Your task to perform on an android device: Open calendar and show me the third week of next month Image 0: 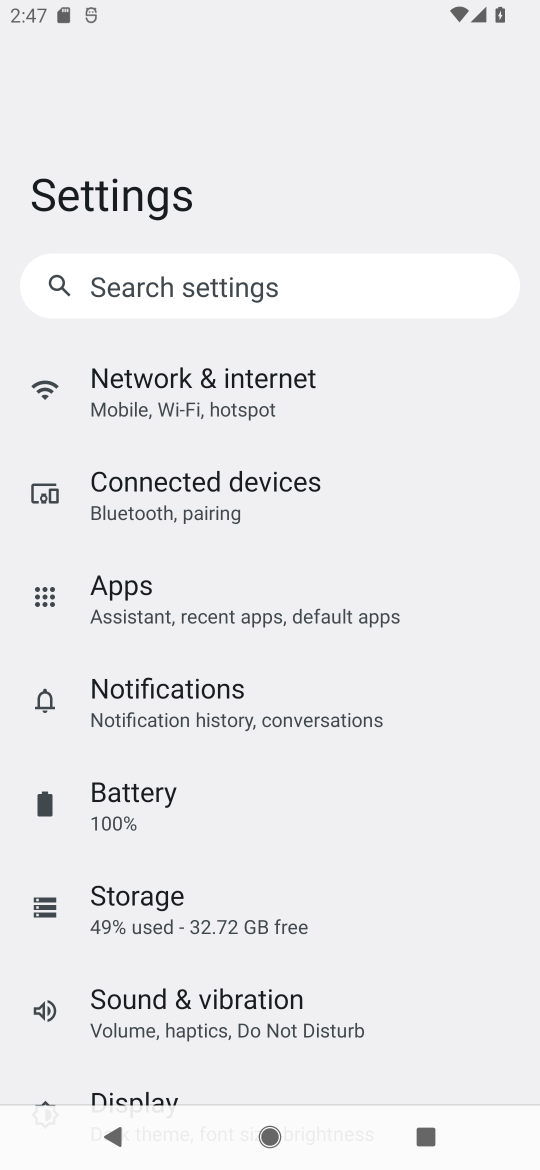
Step 0: press home button
Your task to perform on an android device: Open calendar and show me the third week of next month Image 1: 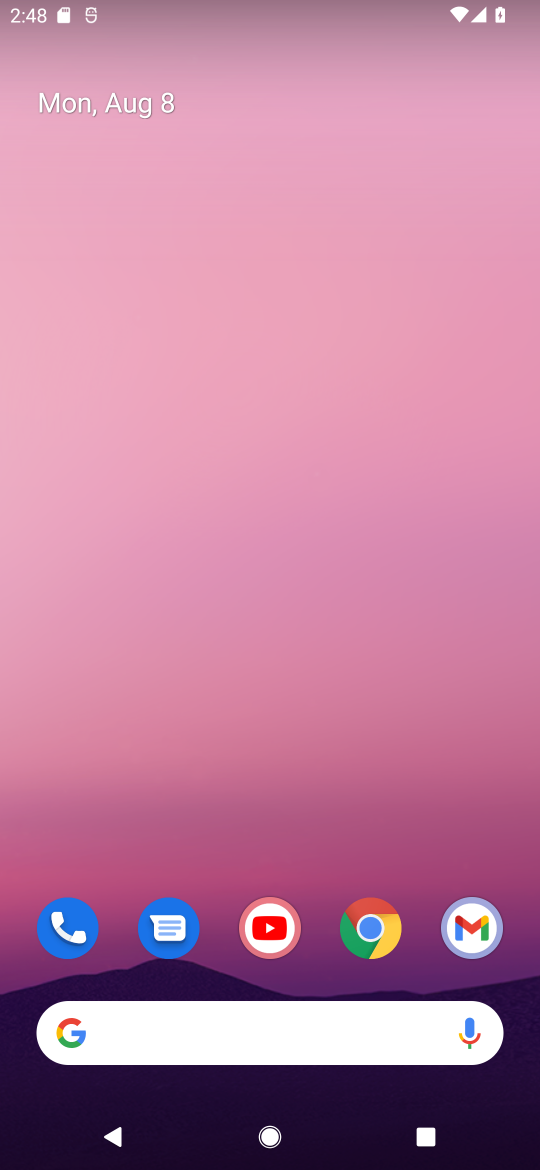
Step 1: click (106, 101)
Your task to perform on an android device: Open calendar and show me the third week of next month Image 2: 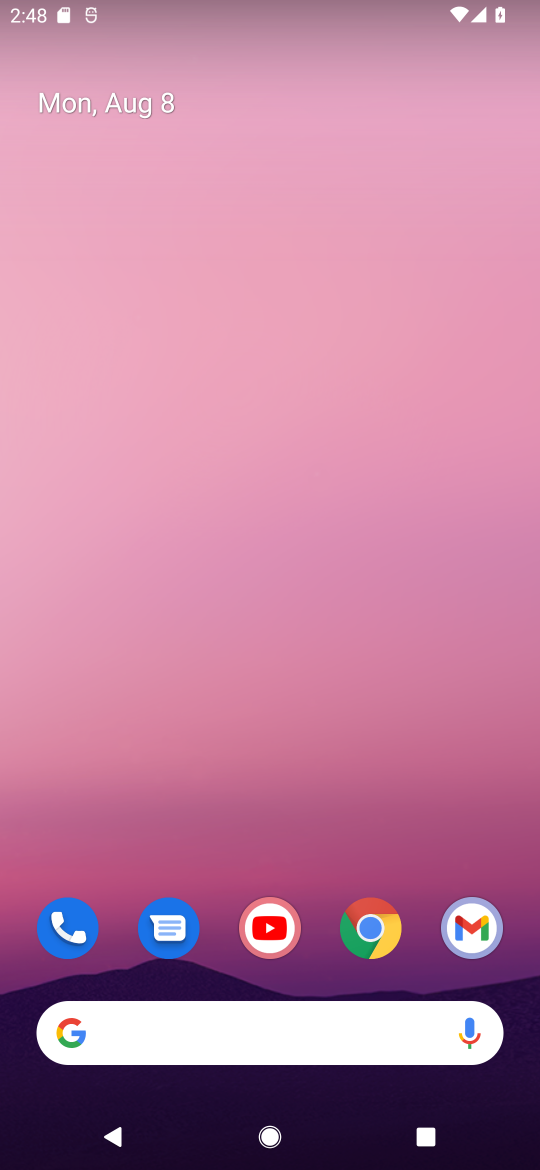
Step 2: click (106, 101)
Your task to perform on an android device: Open calendar and show me the third week of next month Image 3: 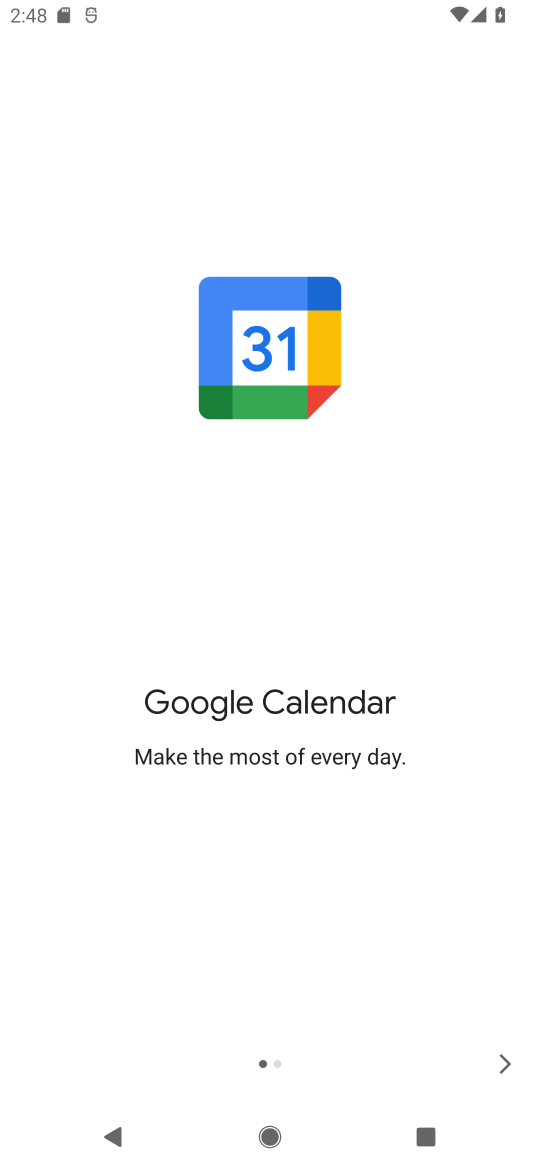
Step 3: click (509, 1068)
Your task to perform on an android device: Open calendar and show me the third week of next month Image 4: 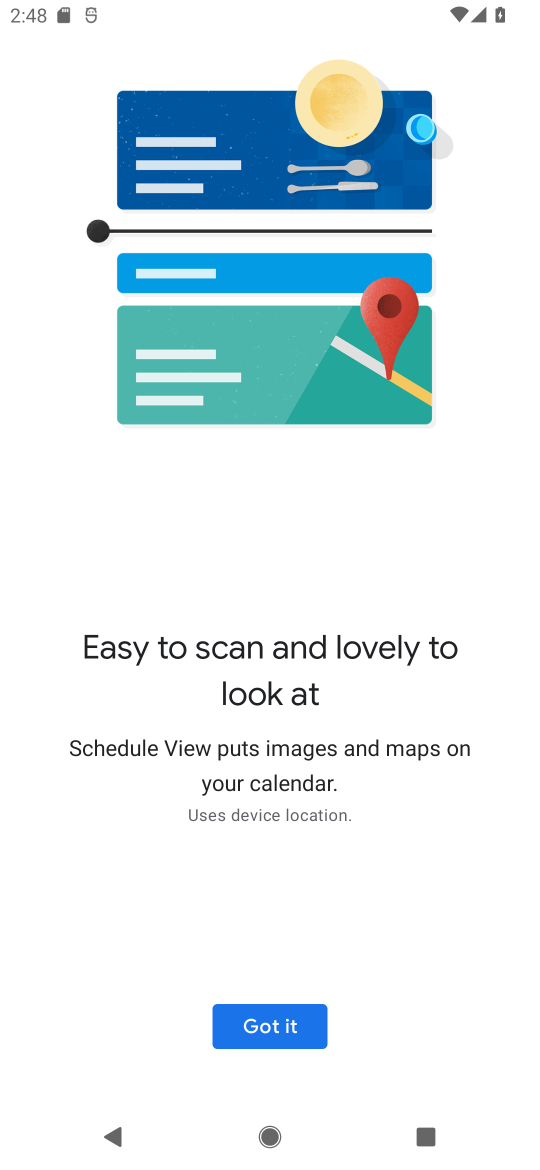
Step 4: click (297, 1017)
Your task to perform on an android device: Open calendar and show me the third week of next month Image 5: 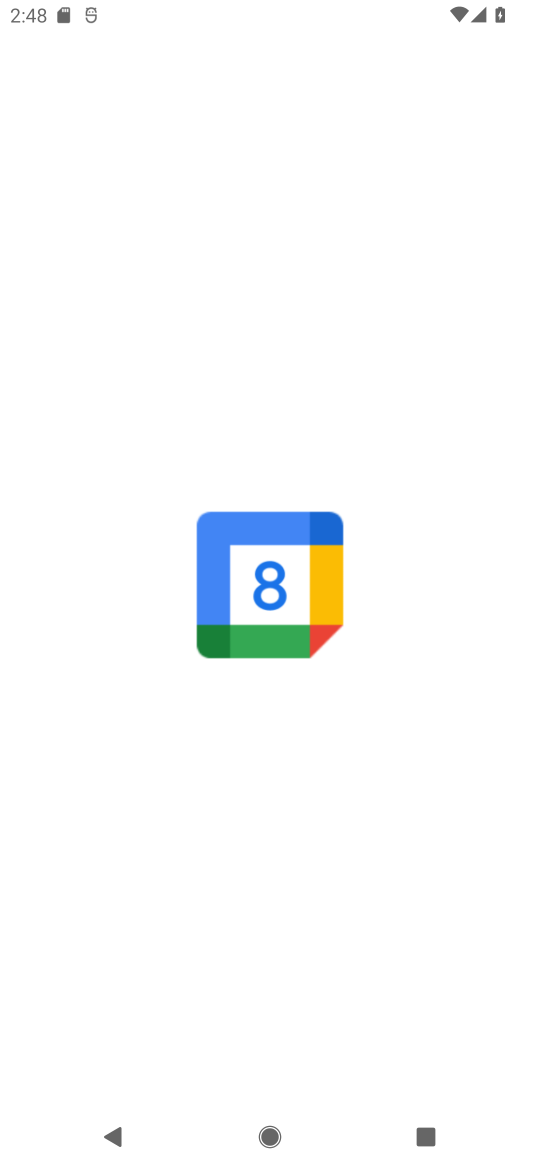
Step 5: click (297, 1017)
Your task to perform on an android device: Open calendar and show me the third week of next month Image 6: 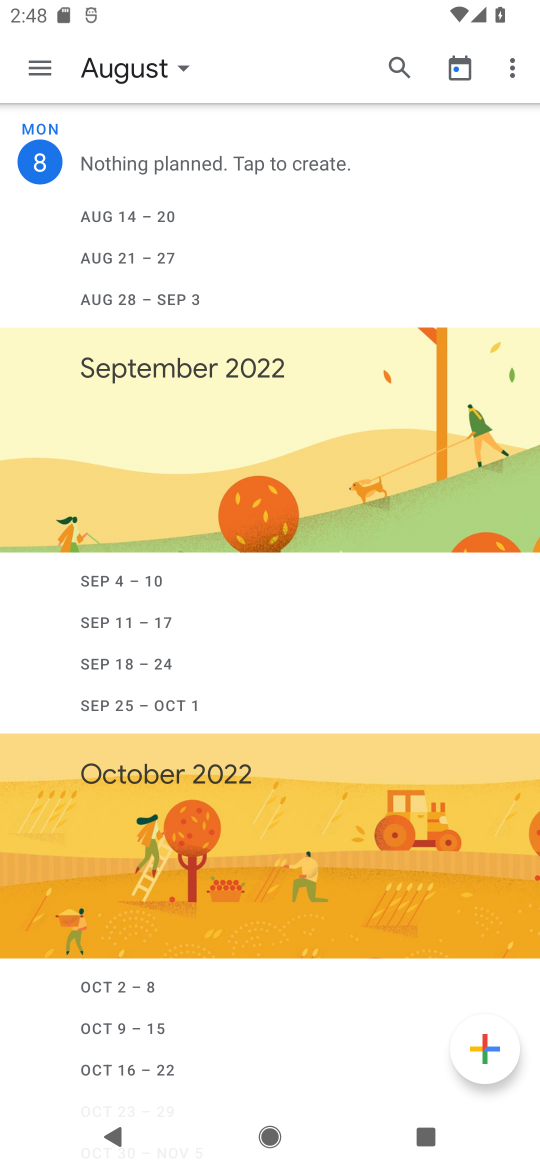
Step 6: click (177, 79)
Your task to perform on an android device: Open calendar and show me the third week of next month Image 7: 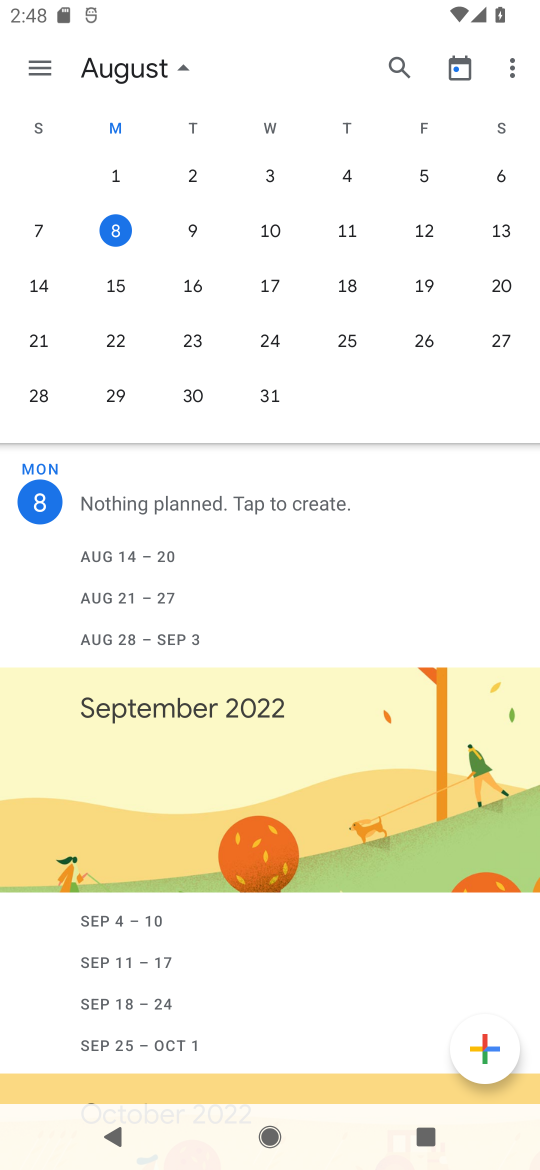
Step 7: drag from (485, 392) to (39, 256)
Your task to perform on an android device: Open calendar and show me the third week of next month Image 8: 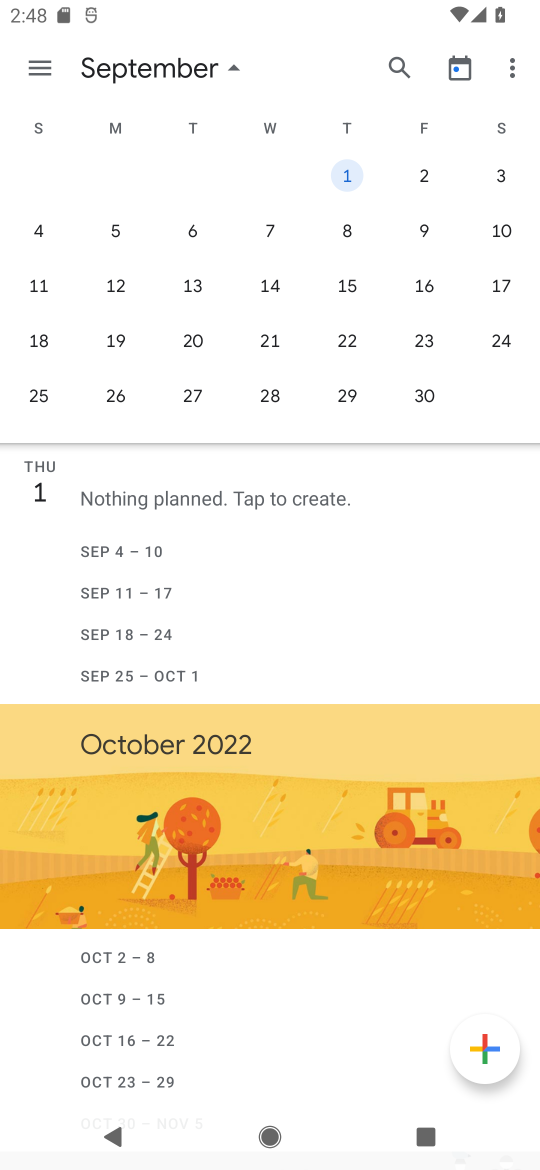
Step 8: click (355, 281)
Your task to perform on an android device: Open calendar and show me the third week of next month Image 9: 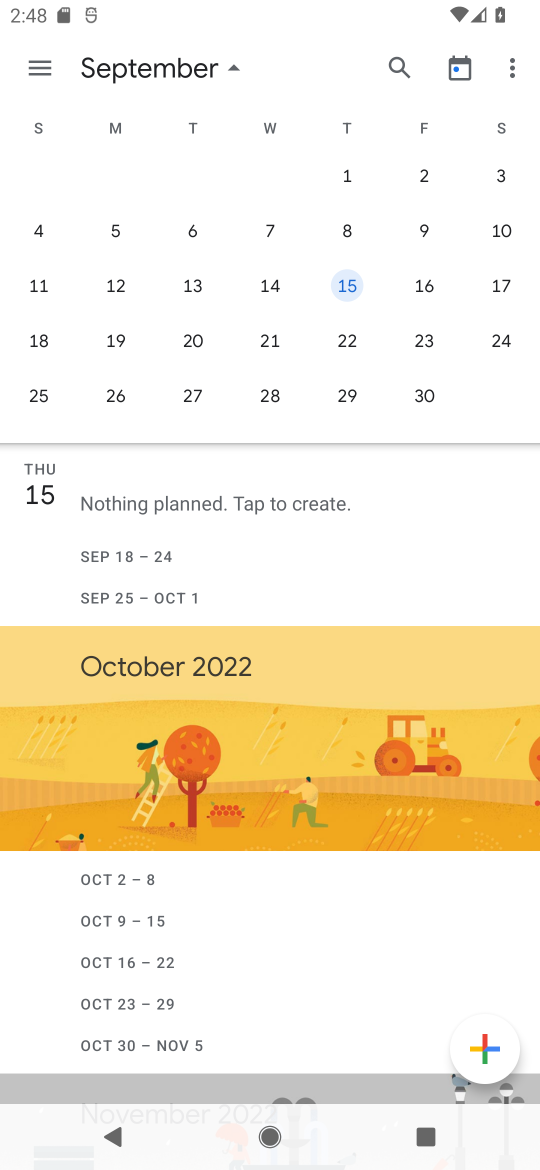
Step 9: task complete